Your task to perform on an android device: turn pop-ups off in chrome Image 0: 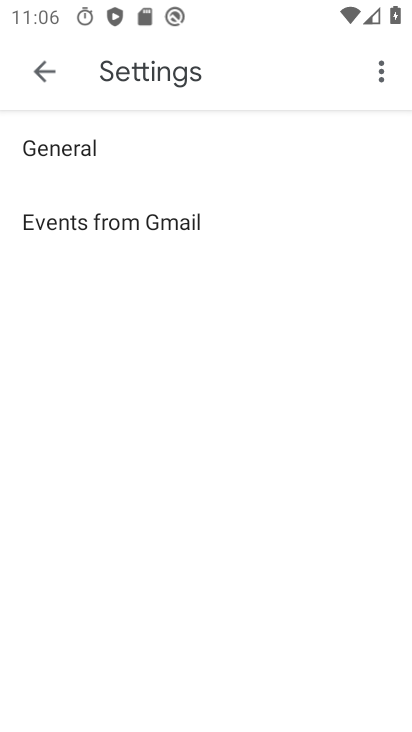
Step 0: press back button
Your task to perform on an android device: turn pop-ups off in chrome Image 1: 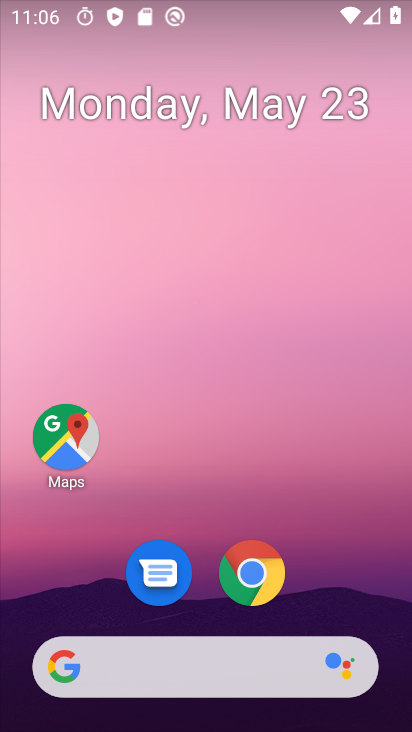
Step 1: click (252, 574)
Your task to perform on an android device: turn pop-ups off in chrome Image 2: 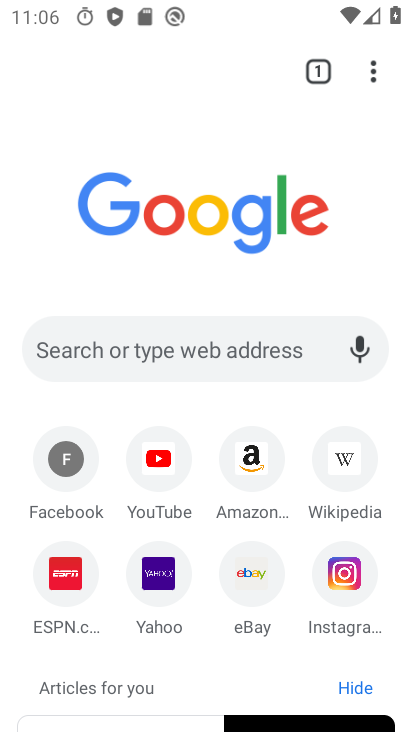
Step 2: click (374, 72)
Your task to perform on an android device: turn pop-ups off in chrome Image 3: 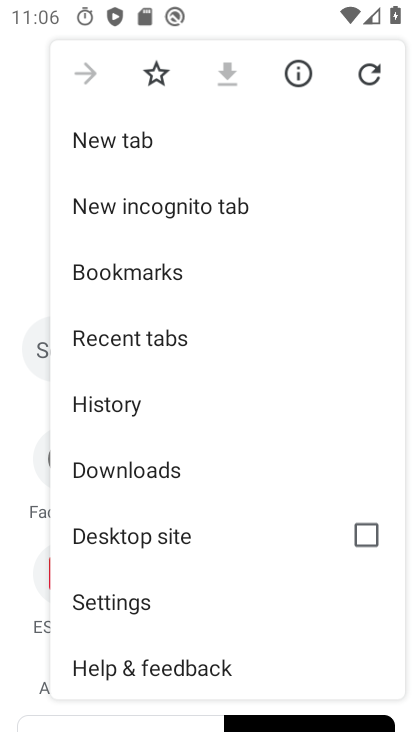
Step 3: click (113, 608)
Your task to perform on an android device: turn pop-ups off in chrome Image 4: 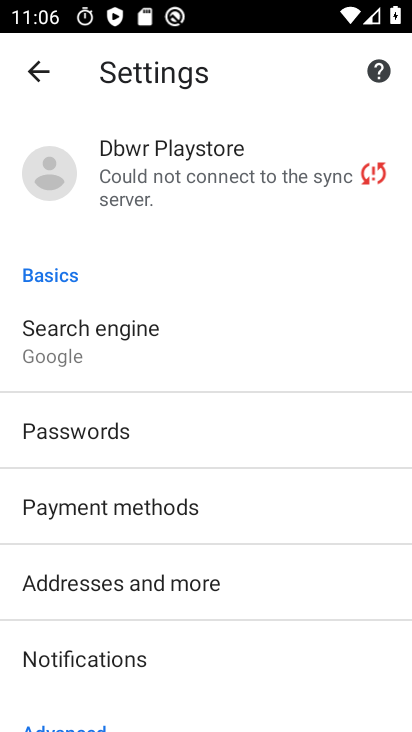
Step 4: drag from (139, 687) to (244, 397)
Your task to perform on an android device: turn pop-ups off in chrome Image 5: 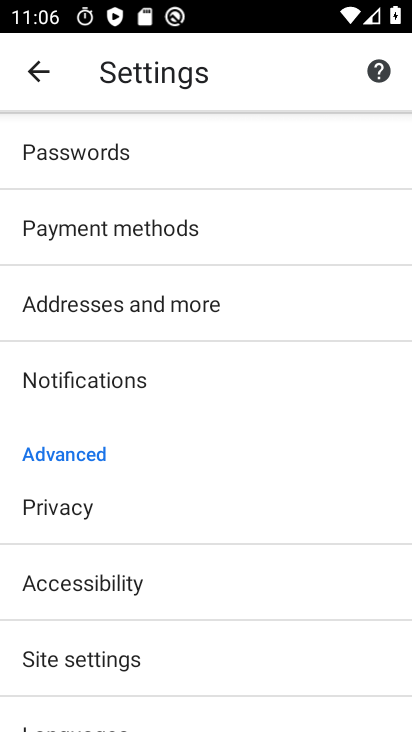
Step 5: drag from (133, 631) to (192, 505)
Your task to perform on an android device: turn pop-ups off in chrome Image 6: 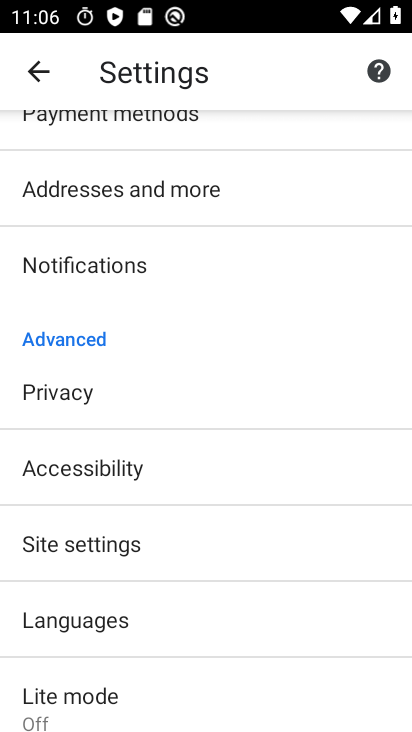
Step 6: click (118, 545)
Your task to perform on an android device: turn pop-ups off in chrome Image 7: 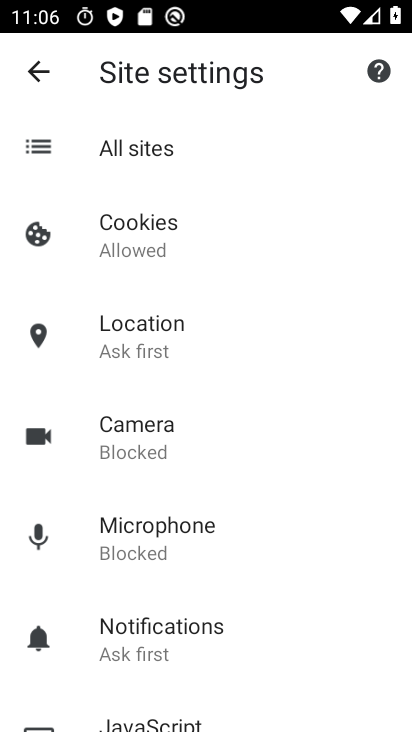
Step 7: drag from (144, 575) to (200, 475)
Your task to perform on an android device: turn pop-ups off in chrome Image 8: 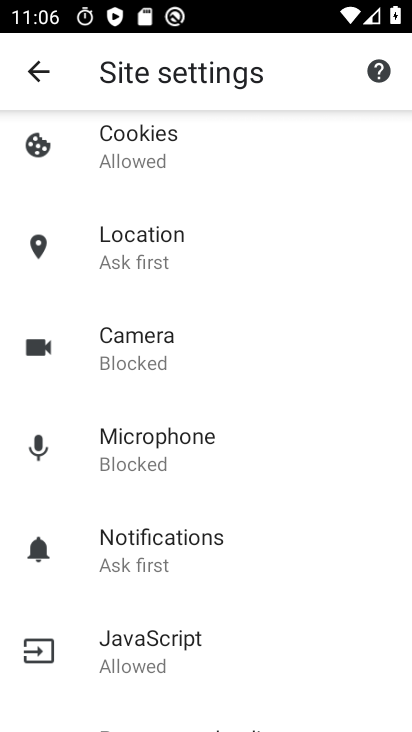
Step 8: drag from (138, 580) to (179, 471)
Your task to perform on an android device: turn pop-ups off in chrome Image 9: 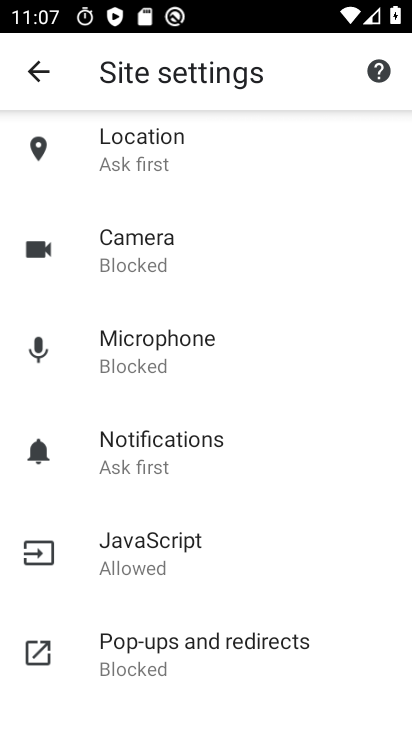
Step 9: click (193, 637)
Your task to perform on an android device: turn pop-ups off in chrome Image 10: 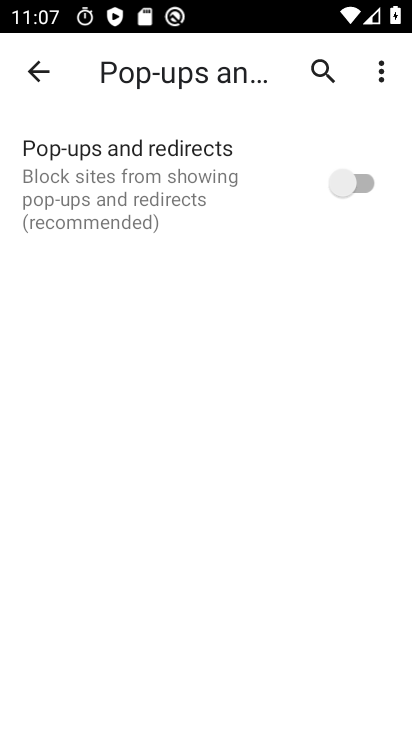
Step 10: task complete